Your task to perform on an android device: What's the weather going to be tomorrow? Image 0: 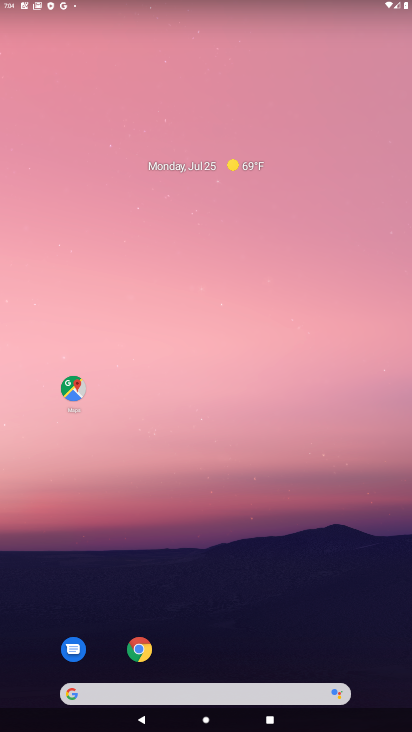
Step 0: drag from (256, 550) to (186, 223)
Your task to perform on an android device: What's the weather going to be tomorrow? Image 1: 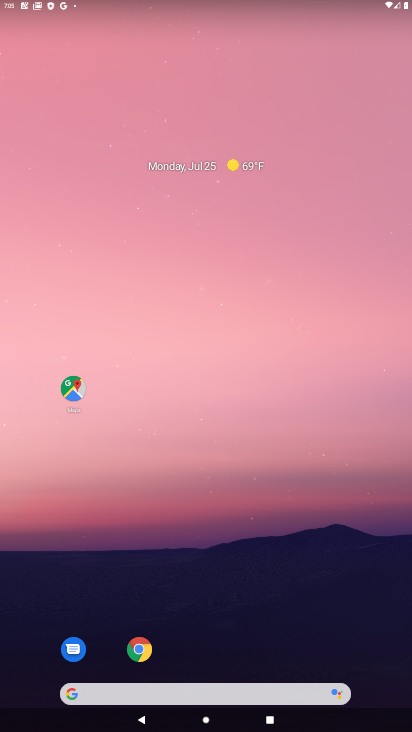
Step 1: drag from (317, 563) to (205, 0)
Your task to perform on an android device: What's the weather going to be tomorrow? Image 2: 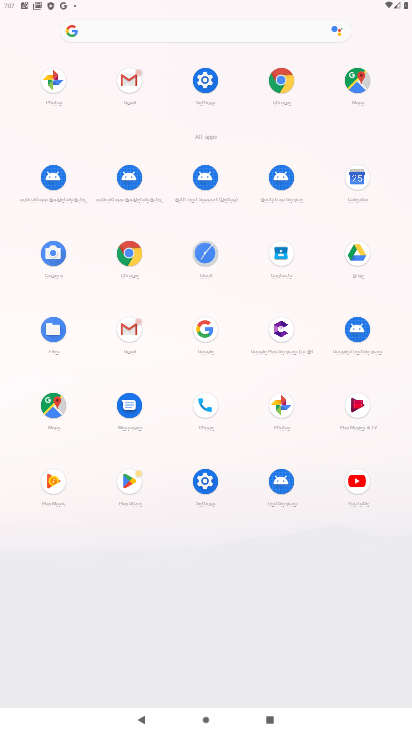
Step 2: click (206, 321)
Your task to perform on an android device: What's the weather going to be tomorrow? Image 3: 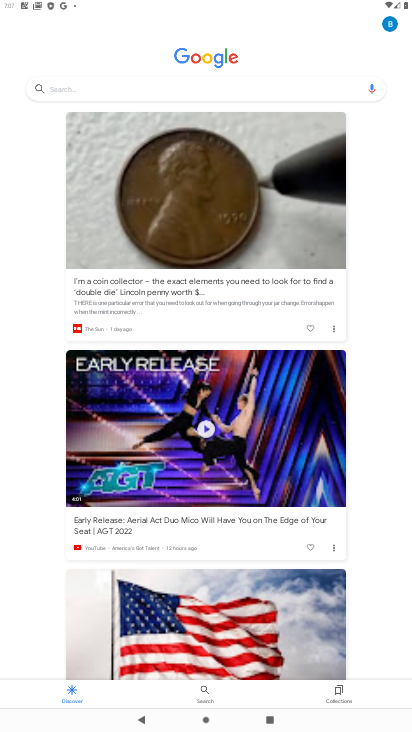
Step 3: click (80, 83)
Your task to perform on an android device: What's the weather going to be tomorrow? Image 4: 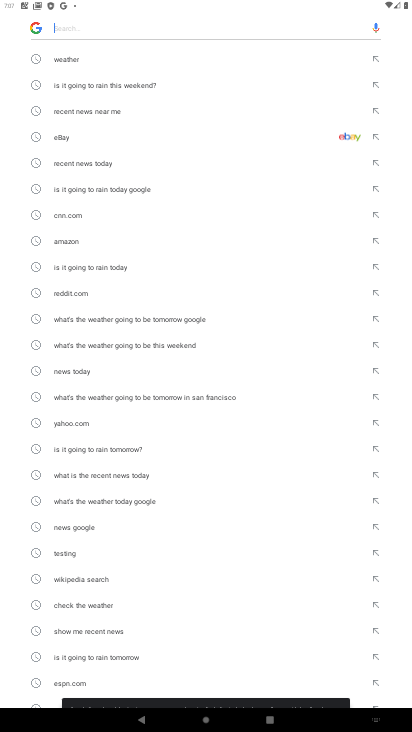
Step 4: click (72, 60)
Your task to perform on an android device: What's the weather going to be tomorrow? Image 5: 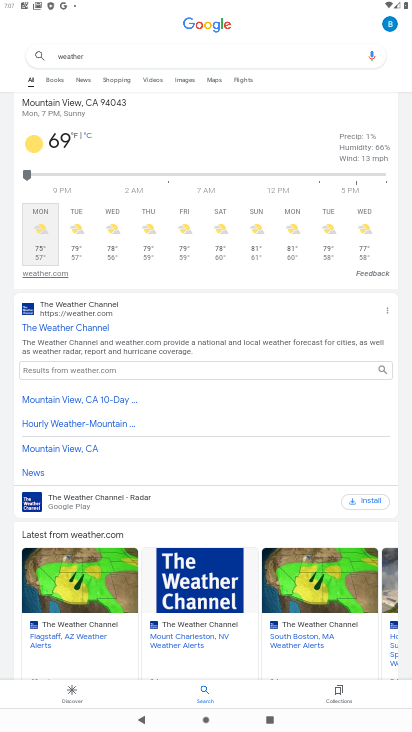
Step 5: task complete